Your task to perform on an android device: Open privacy settings Image 0: 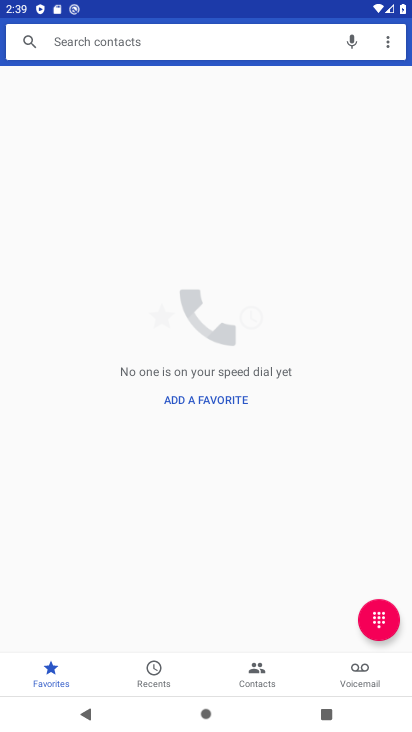
Step 0: press home button
Your task to perform on an android device: Open privacy settings Image 1: 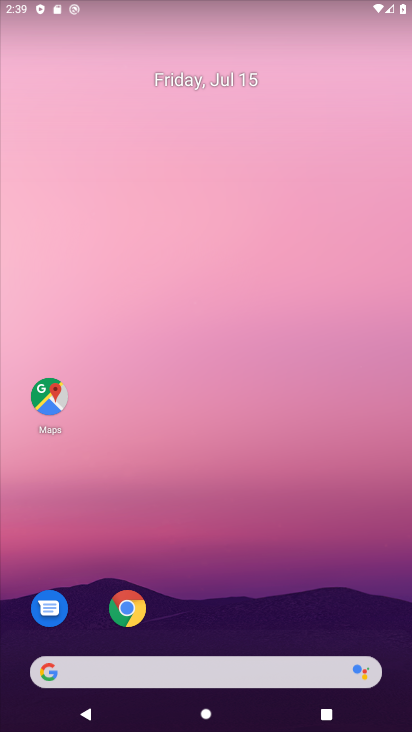
Step 1: drag from (310, 619) to (228, 122)
Your task to perform on an android device: Open privacy settings Image 2: 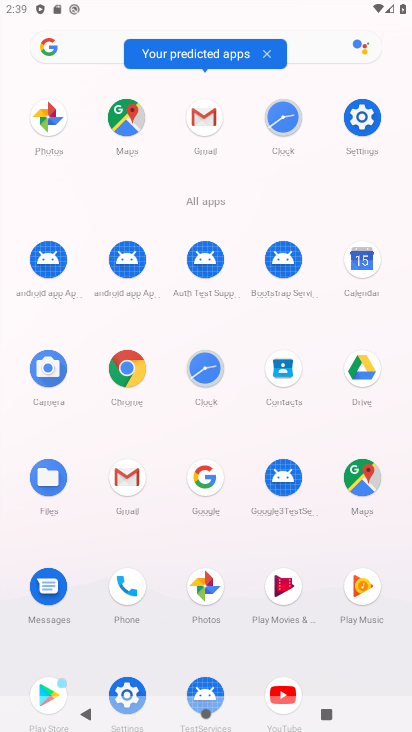
Step 2: click (361, 130)
Your task to perform on an android device: Open privacy settings Image 3: 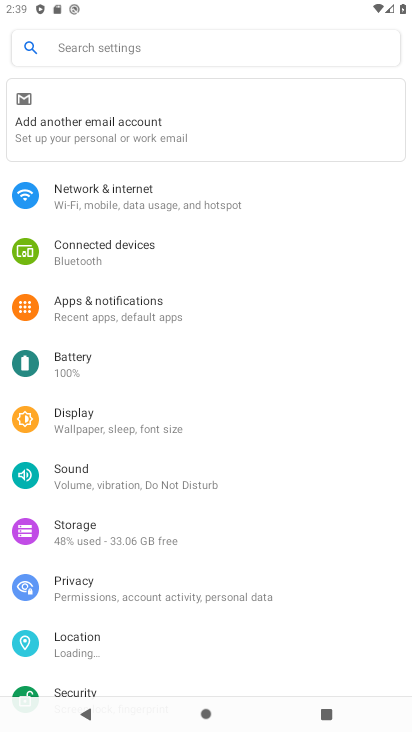
Step 3: click (164, 589)
Your task to perform on an android device: Open privacy settings Image 4: 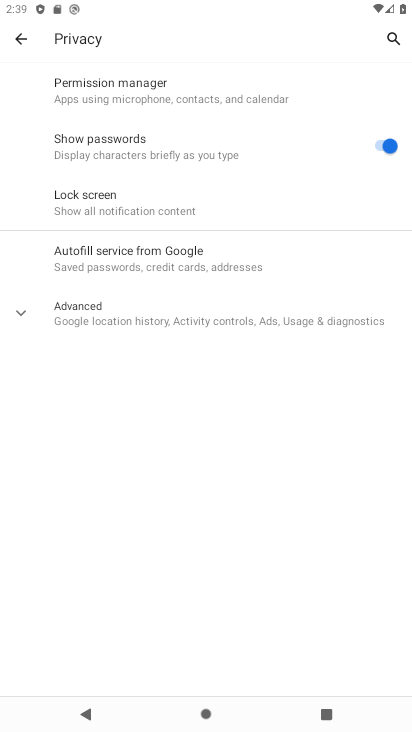
Step 4: task complete